Your task to perform on an android device: show emergency info Image 0: 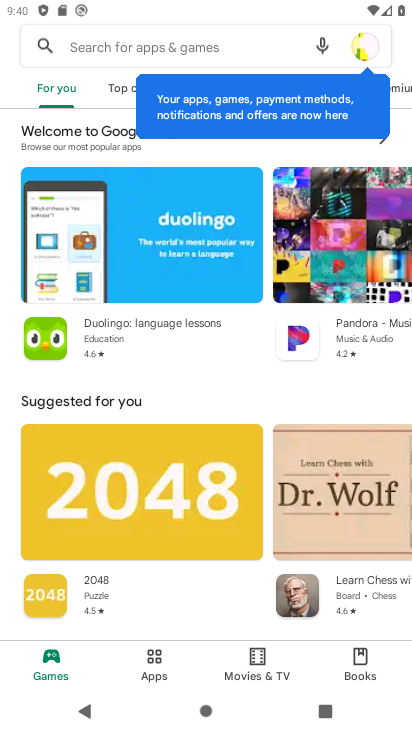
Step 0: press home button
Your task to perform on an android device: show emergency info Image 1: 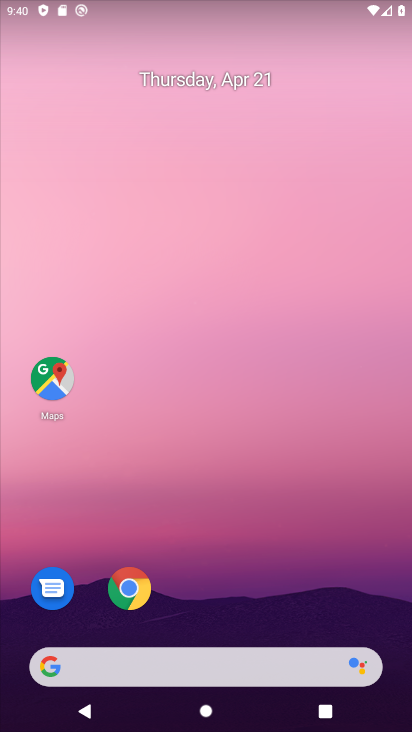
Step 1: drag from (266, 610) to (219, 77)
Your task to perform on an android device: show emergency info Image 2: 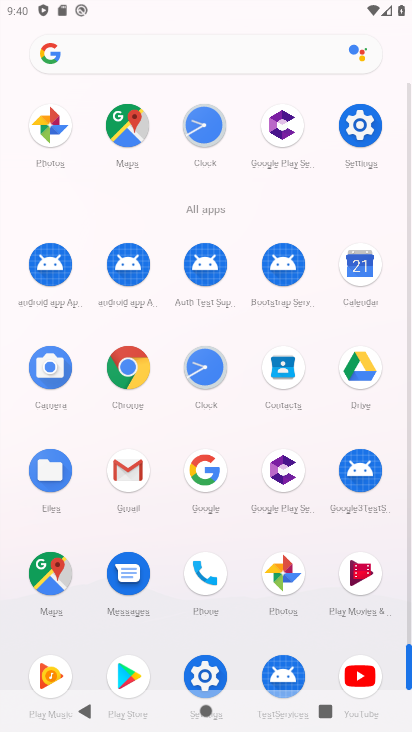
Step 2: click (363, 162)
Your task to perform on an android device: show emergency info Image 3: 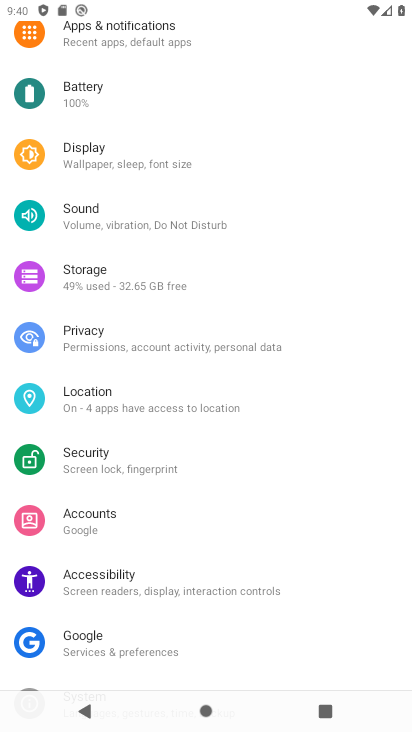
Step 3: drag from (191, 587) to (159, 91)
Your task to perform on an android device: show emergency info Image 4: 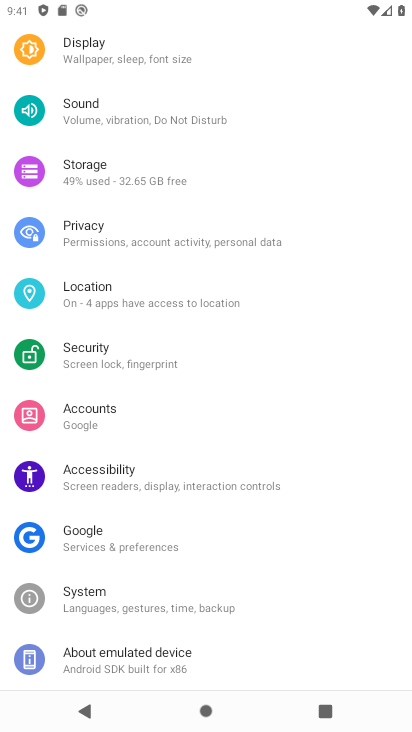
Step 4: click (134, 666)
Your task to perform on an android device: show emergency info Image 5: 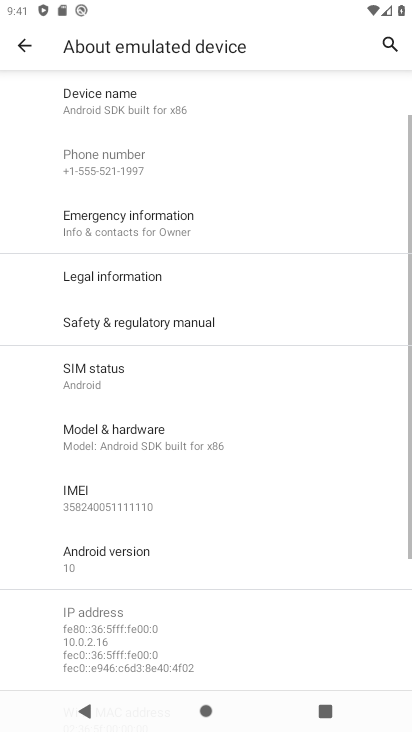
Step 5: click (157, 237)
Your task to perform on an android device: show emergency info Image 6: 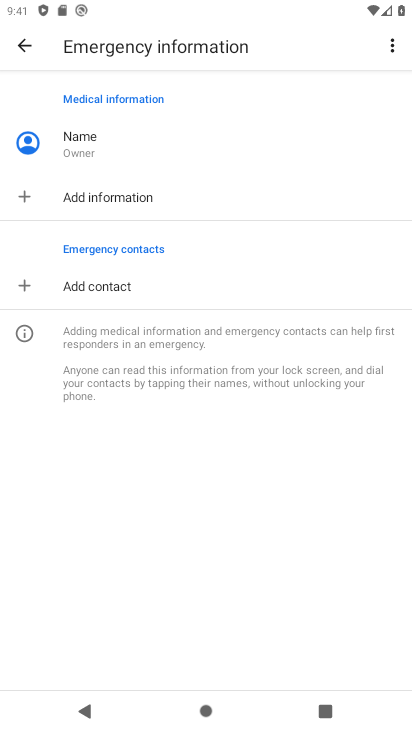
Step 6: task complete